Your task to perform on an android device: Open Wikipedia Image 0: 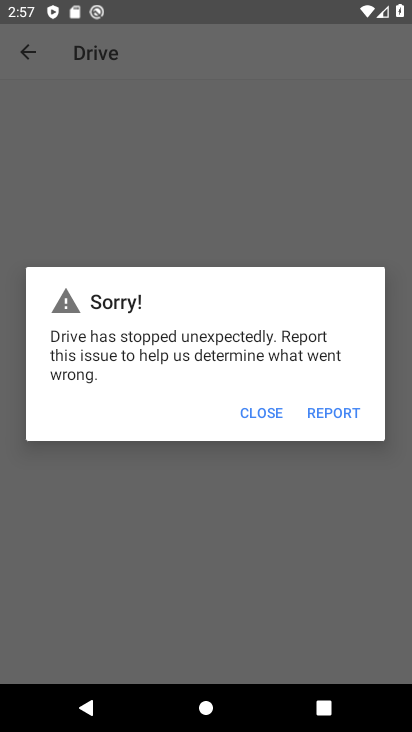
Step 0: press home button
Your task to perform on an android device: Open Wikipedia Image 1: 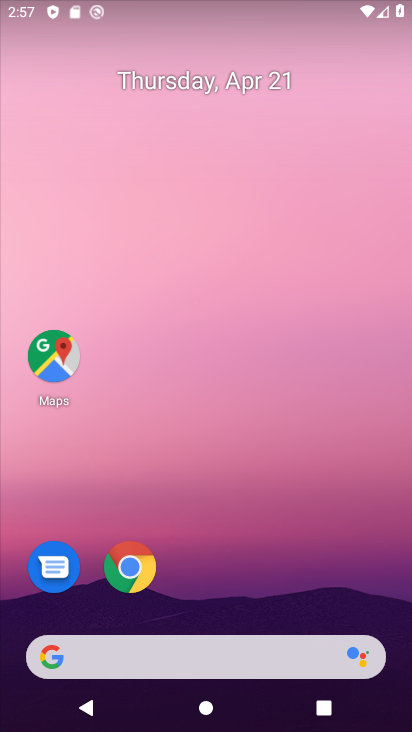
Step 1: click (129, 570)
Your task to perform on an android device: Open Wikipedia Image 2: 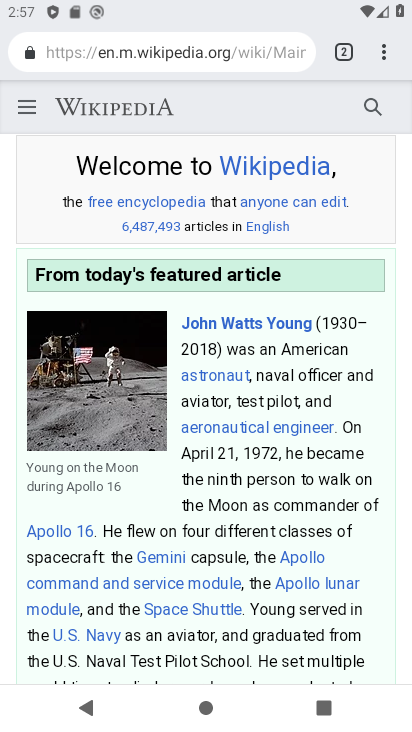
Step 2: task complete